Your task to perform on an android device: Open Maps and search for coffee Image 0: 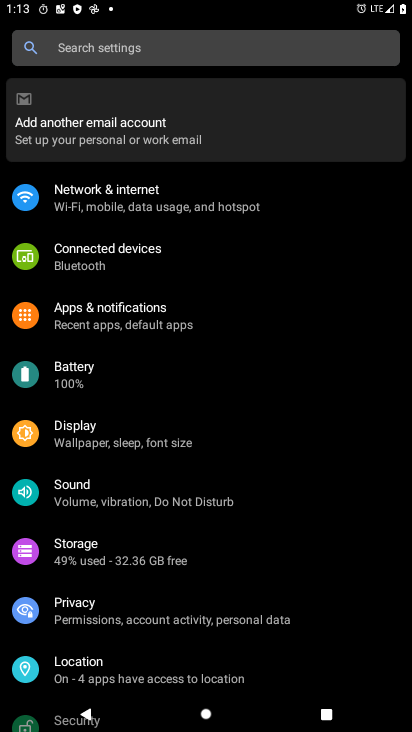
Step 0: press home button
Your task to perform on an android device: Open Maps and search for coffee Image 1: 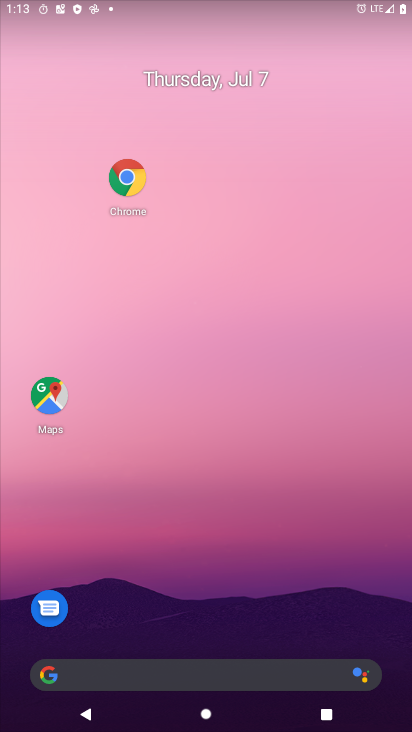
Step 1: click (41, 388)
Your task to perform on an android device: Open Maps and search for coffee Image 2: 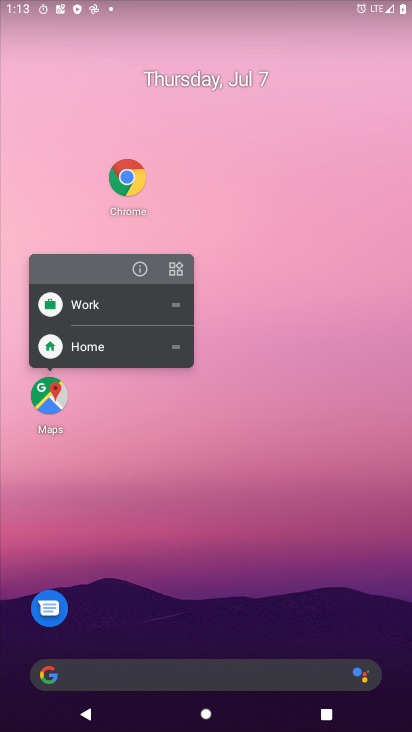
Step 2: click (48, 394)
Your task to perform on an android device: Open Maps and search for coffee Image 3: 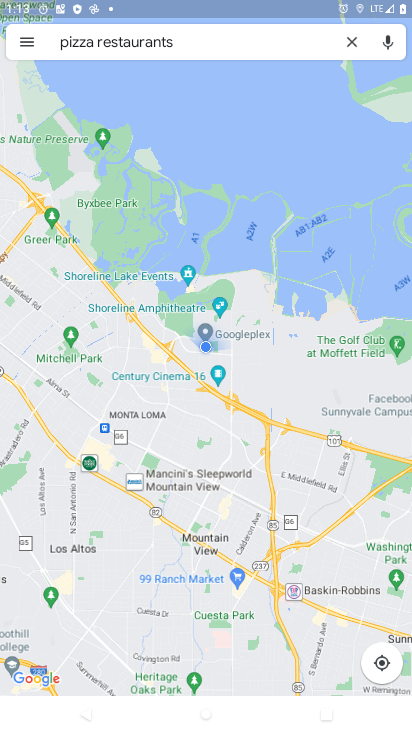
Step 3: click (182, 44)
Your task to perform on an android device: Open Maps and search for coffee Image 4: 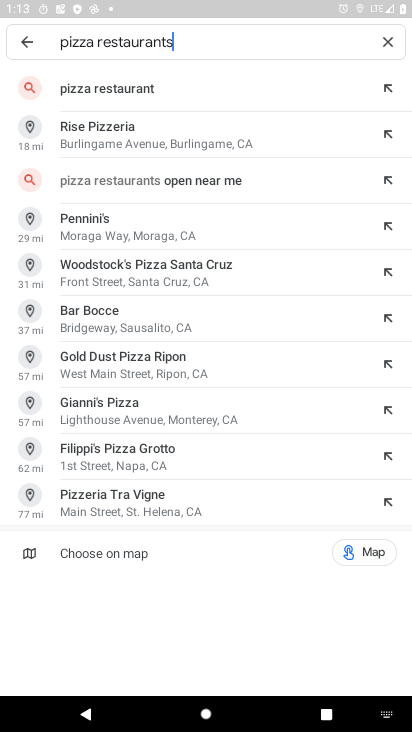
Step 4: click (389, 44)
Your task to perform on an android device: Open Maps and search for coffee Image 5: 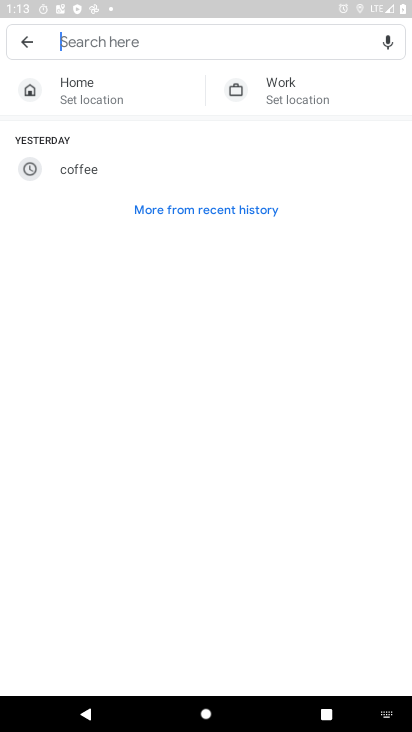
Step 5: click (149, 41)
Your task to perform on an android device: Open Maps and search for coffee Image 6: 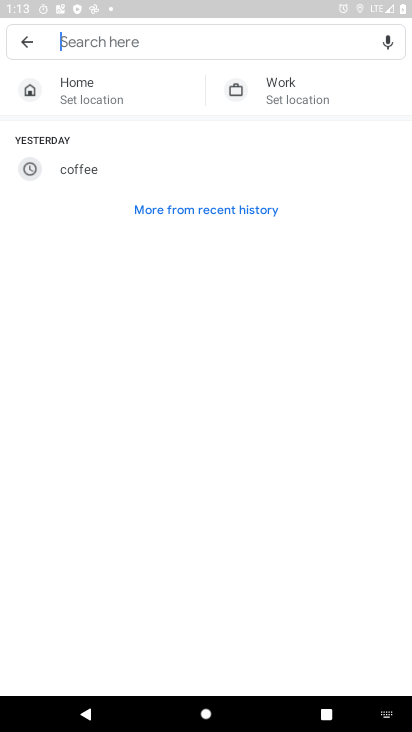
Step 6: click (73, 167)
Your task to perform on an android device: Open Maps and search for coffee Image 7: 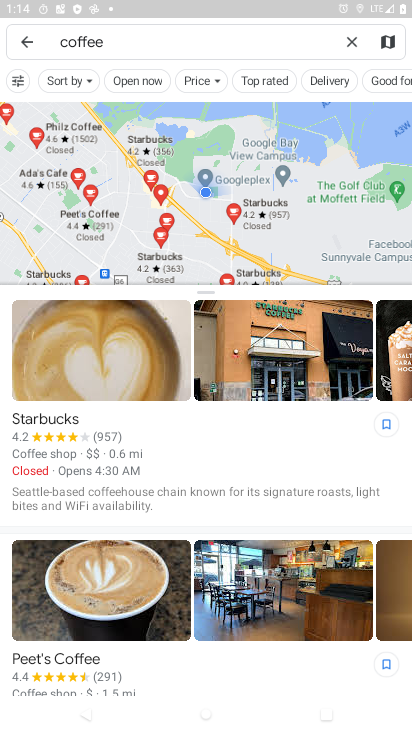
Step 7: task complete